Your task to perform on an android device: change your default location settings in chrome Image 0: 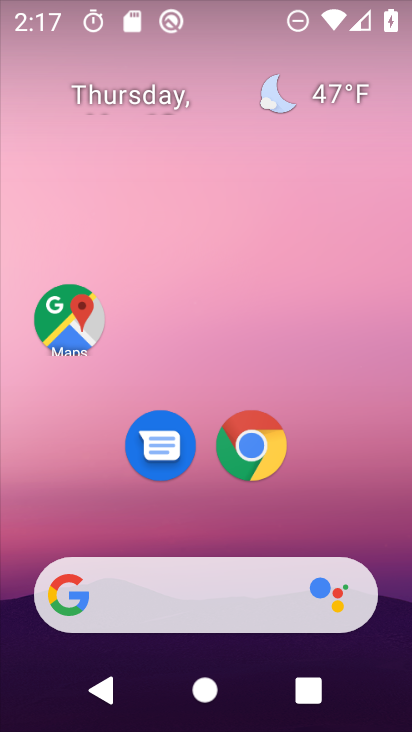
Step 0: click (258, 434)
Your task to perform on an android device: change your default location settings in chrome Image 1: 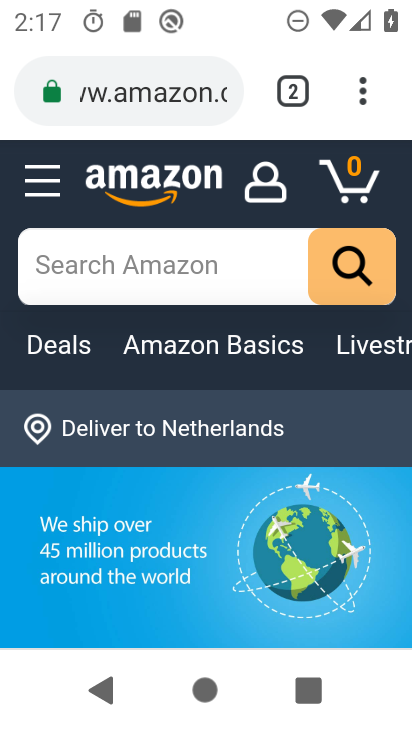
Step 1: click (354, 101)
Your task to perform on an android device: change your default location settings in chrome Image 2: 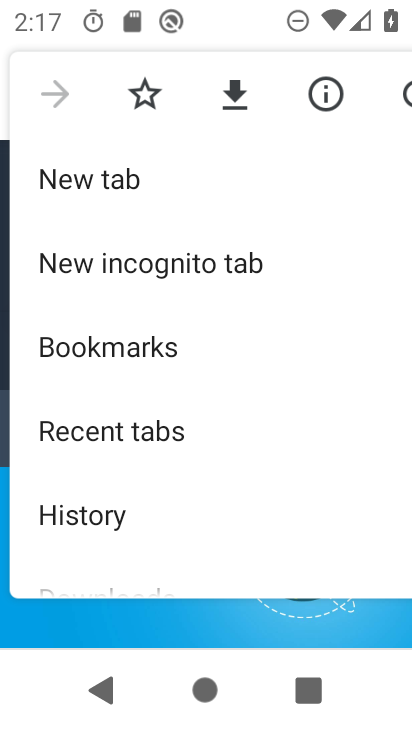
Step 2: drag from (219, 491) to (273, 239)
Your task to perform on an android device: change your default location settings in chrome Image 3: 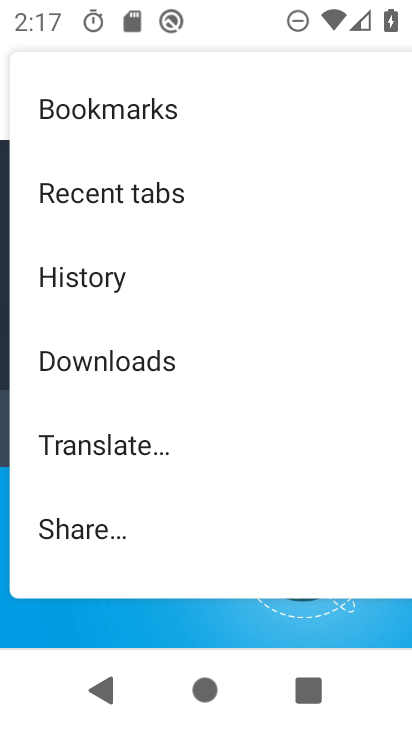
Step 3: drag from (155, 509) to (214, 316)
Your task to perform on an android device: change your default location settings in chrome Image 4: 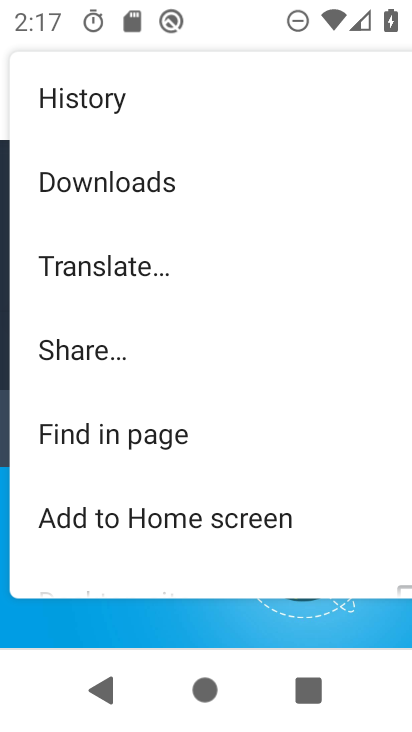
Step 4: drag from (138, 506) to (213, 289)
Your task to perform on an android device: change your default location settings in chrome Image 5: 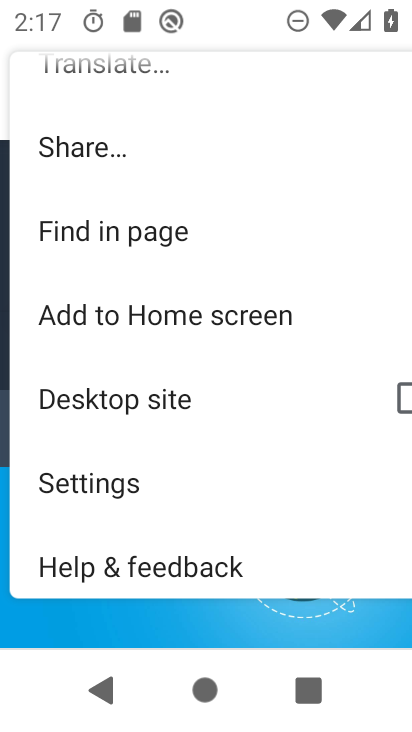
Step 5: click (132, 480)
Your task to perform on an android device: change your default location settings in chrome Image 6: 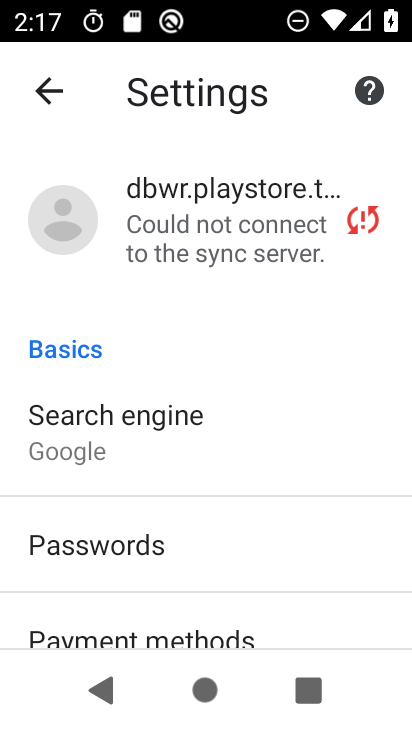
Step 6: drag from (213, 597) to (300, 353)
Your task to perform on an android device: change your default location settings in chrome Image 7: 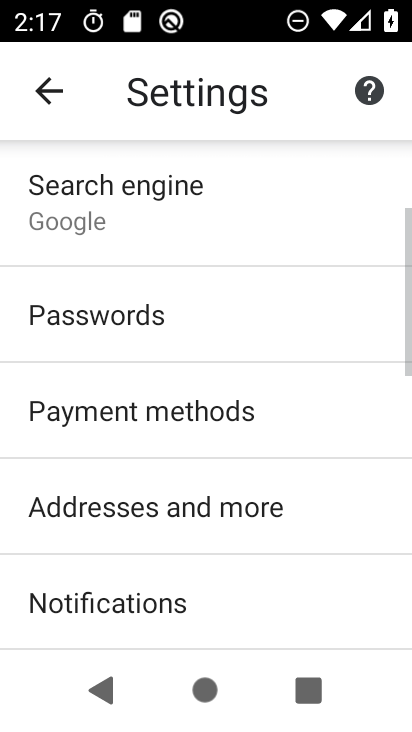
Step 7: drag from (283, 564) to (259, 297)
Your task to perform on an android device: change your default location settings in chrome Image 8: 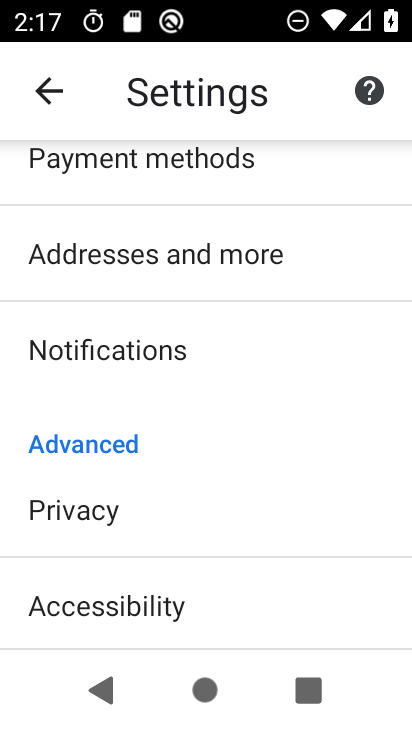
Step 8: drag from (196, 564) to (245, 391)
Your task to perform on an android device: change your default location settings in chrome Image 9: 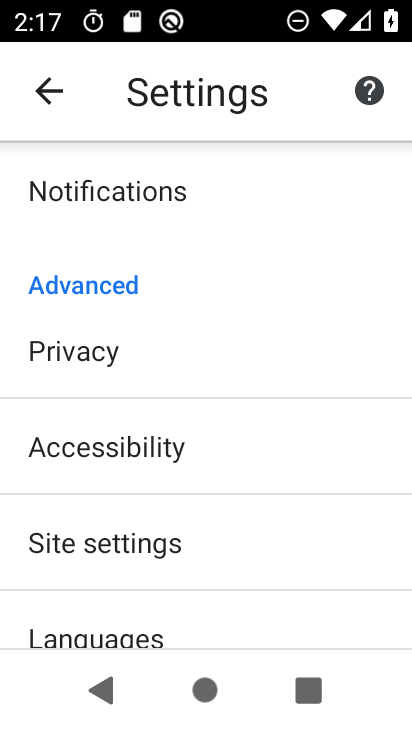
Step 9: click (214, 520)
Your task to perform on an android device: change your default location settings in chrome Image 10: 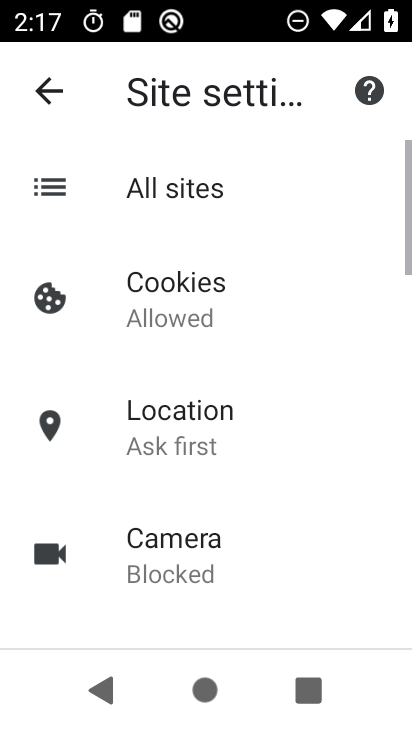
Step 10: click (219, 432)
Your task to perform on an android device: change your default location settings in chrome Image 11: 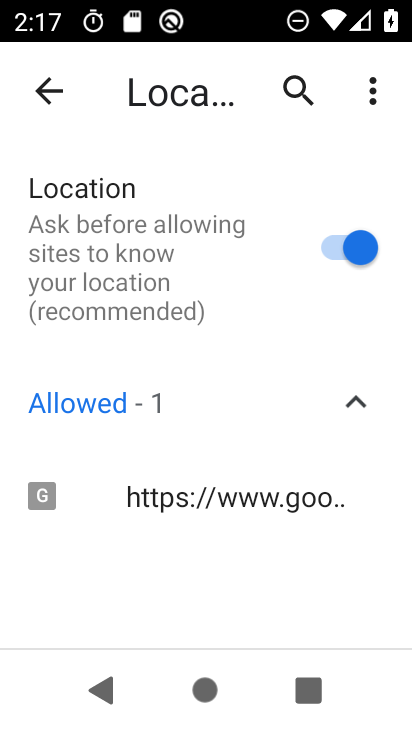
Step 11: click (324, 241)
Your task to perform on an android device: change your default location settings in chrome Image 12: 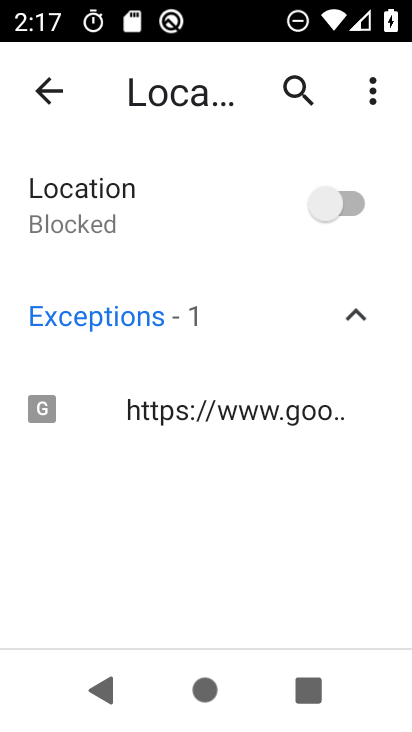
Step 12: task complete